Your task to perform on an android device: Open Youtube and go to the subscriptions tab Image 0: 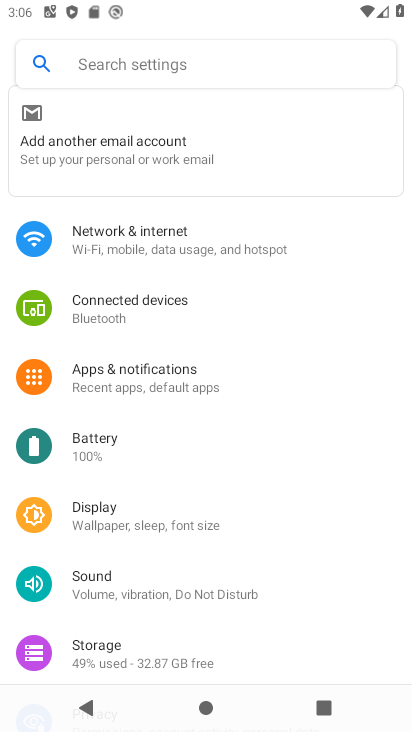
Step 0: press home button
Your task to perform on an android device: Open Youtube and go to the subscriptions tab Image 1: 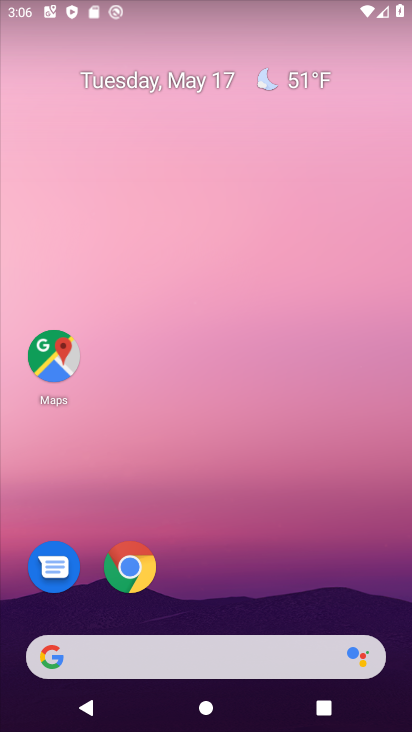
Step 1: drag from (164, 661) to (224, 156)
Your task to perform on an android device: Open Youtube and go to the subscriptions tab Image 2: 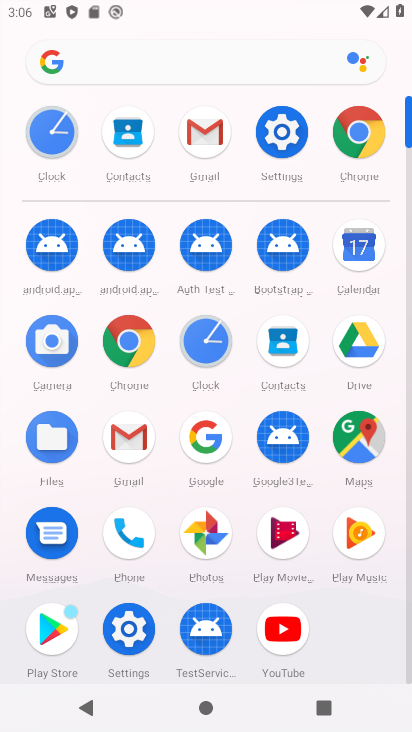
Step 2: click (222, 158)
Your task to perform on an android device: Open Youtube and go to the subscriptions tab Image 3: 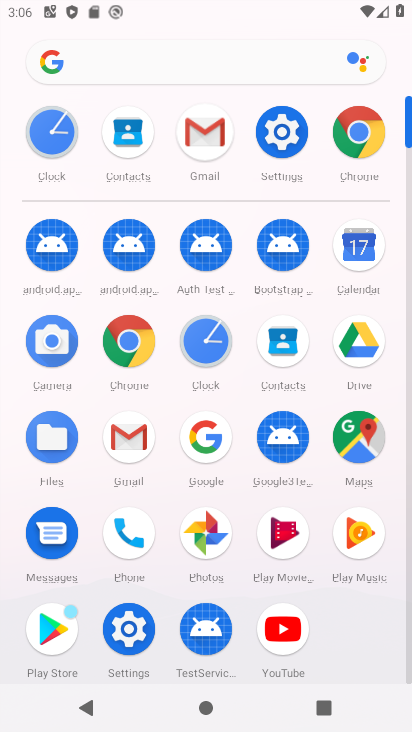
Step 3: click (222, 158)
Your task to perform on an android device: Open Youtube and go to the subscriptions tab Image 4: 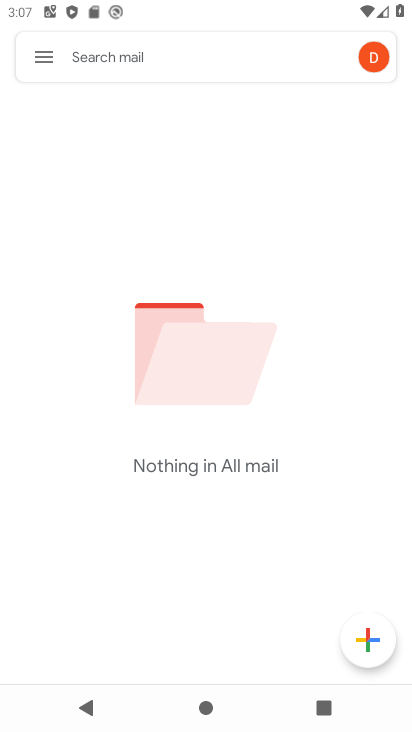
Step 4: press home button
Your task to perform on an android device: Open Youtube and go to the subscriptions tab Image 5: 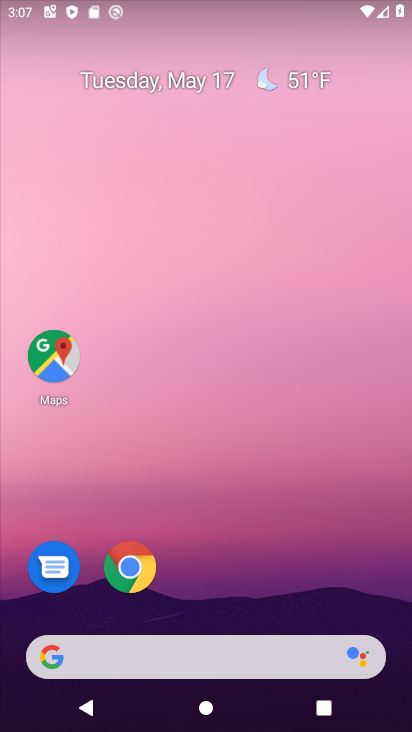
Step 5: drag from (143, 649) to (138, 175)
Your task to perform on an android device: Open Youtube and go to the subscriptions tab Image 6: 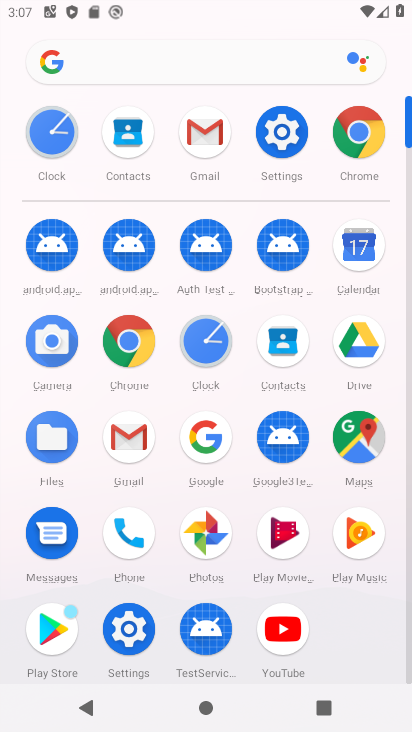
Step 6: click (267, 621)
Your task to perform on an android device: Open Youtube and go to the subscriptions tab Image 7: 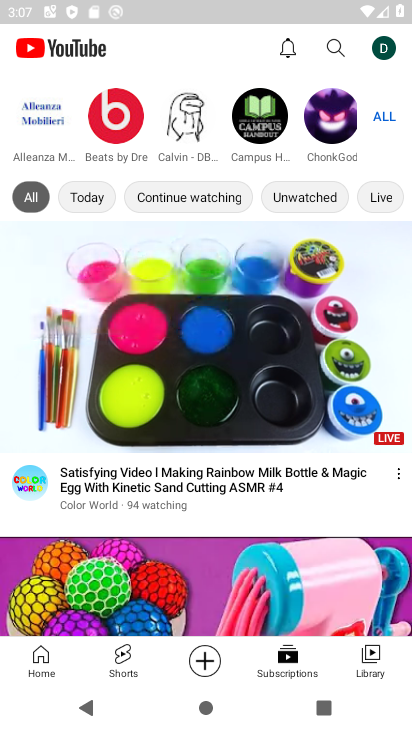
Step 7: click (272, 654)
Your task to perform on an android device: Open Youtube and go to the subscriptions tab Image 8: 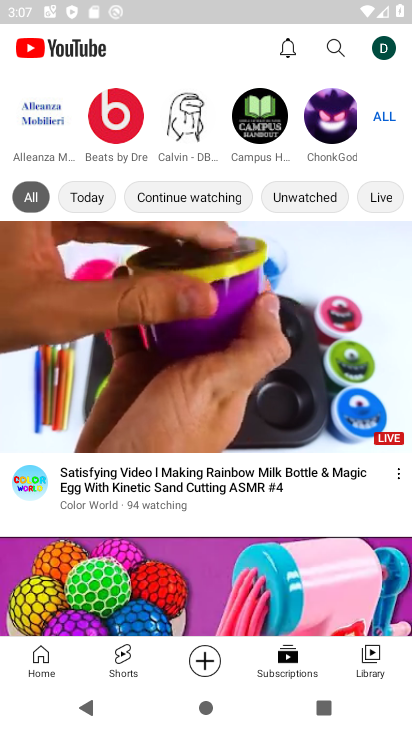
Step 8: task complete